Your task to perform on an android device: set the timer Image 0: 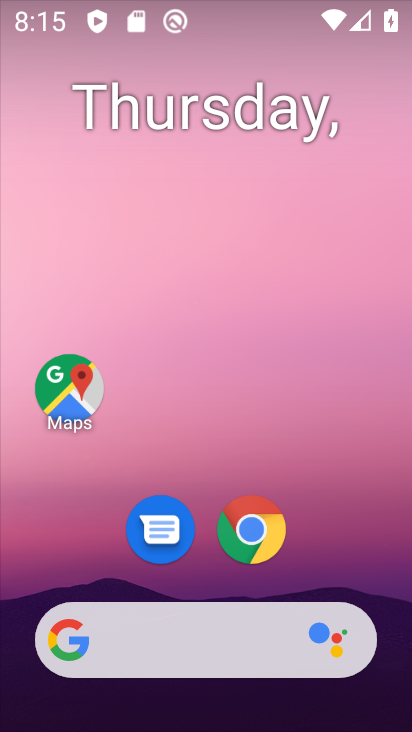
Step 0: press home button
Your task to perform on an android device: set the timer Image 1: 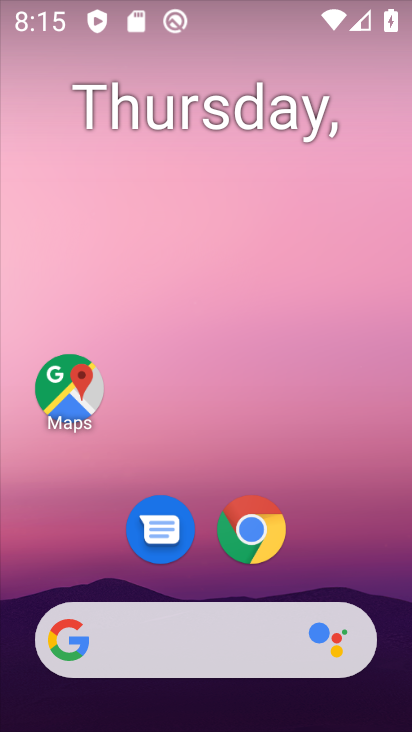
Step 1: drag from (211, 576) to (235, 118)
Your task to perform on an android device: set the timer Image 2: 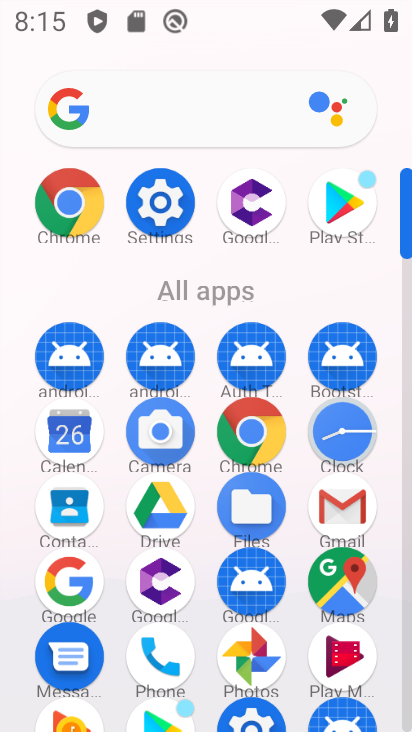
Step 2: click (344, 426)
Your task to perform on an android device: set the timer Image 3: 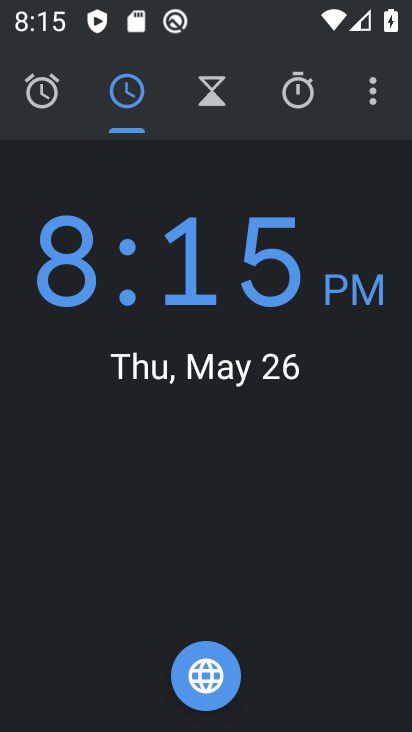
Step 3: click (212, 105)
Your task to perform on an android device: set the timer Image 4: 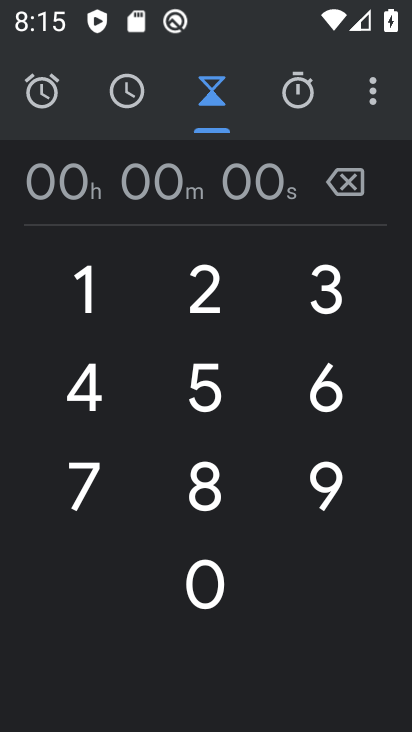
Step 4: click (220, 284)
Your task to perform on an android device: set the timer Image 5: 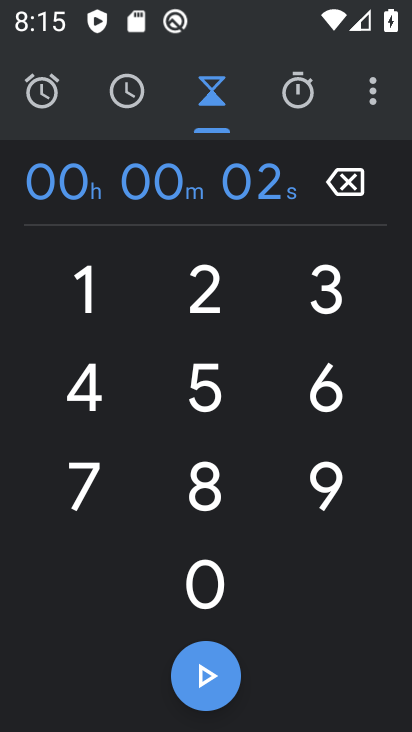
Step 5: click (196, 584)
Your task to perform on an android device: set the timer Image 6: 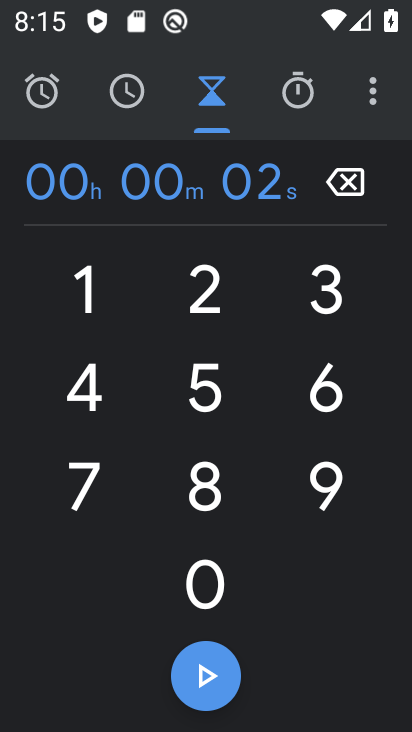
Step 6: click (196, 584)
Your task to perform on an android device: set the timer Image 7: 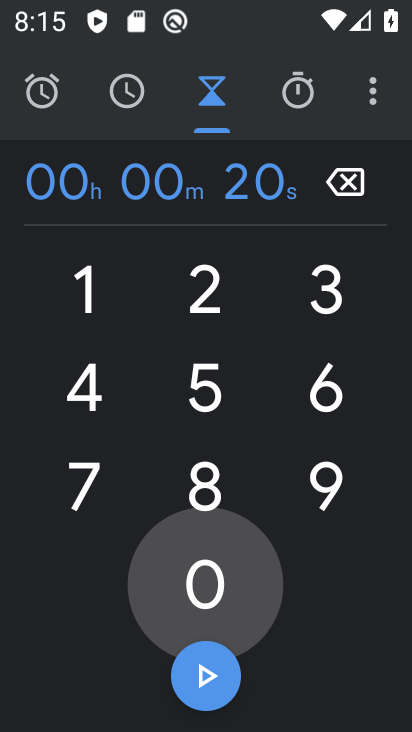
Step 7: click (196, 584)
Your task to perform on an android device: set the timer Image 8: 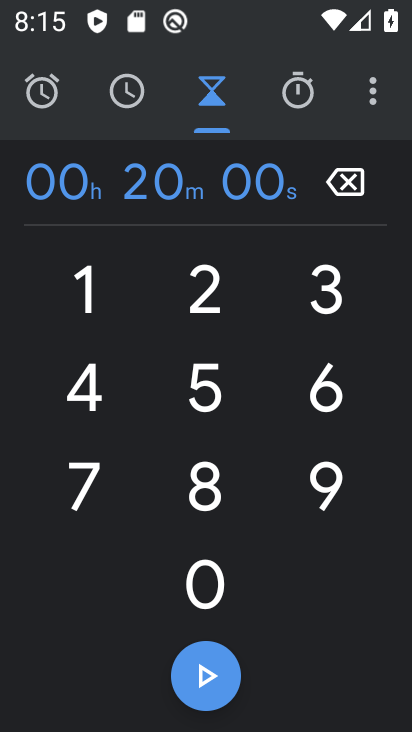
Step 8: click (205, 686)
Your task to perform on an android device: set the timer Image 9: 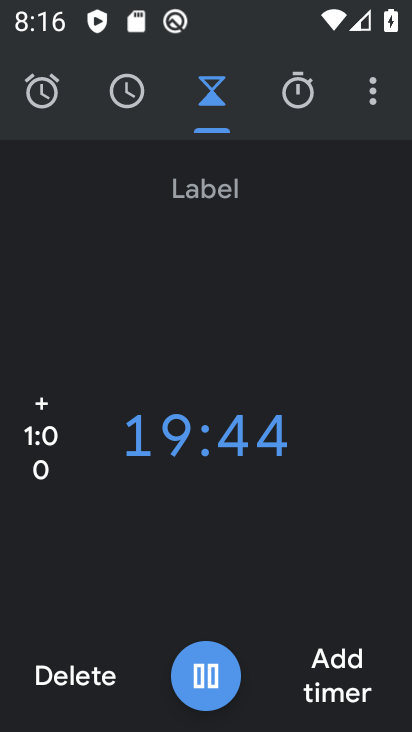
Step 9: task complete